Your task to perform on an android device: toggle airplane mode Image 0: 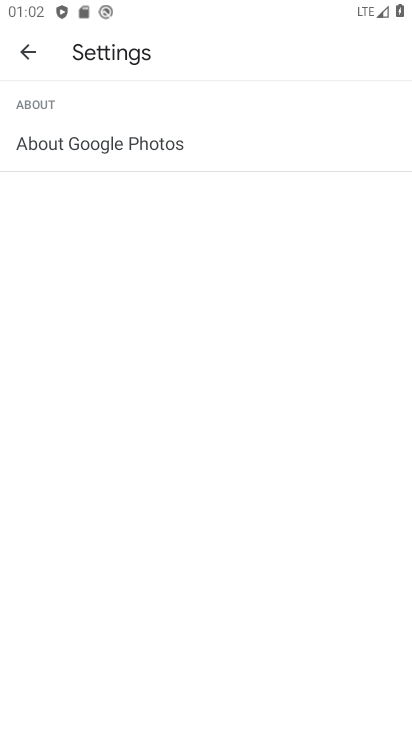
Step 0: press home button
Your task to perform on an android device: toggle airplane mode Image 1: 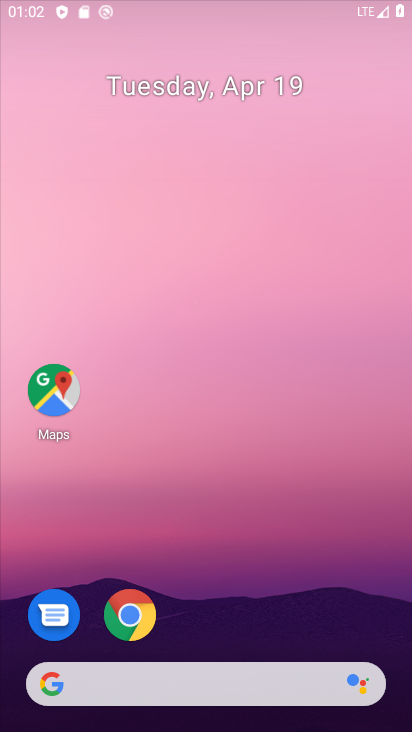
Step 1: drag from (233, 663) to (244, 167)
Your task to perform on an android device: toggle airplane mode Image 2: 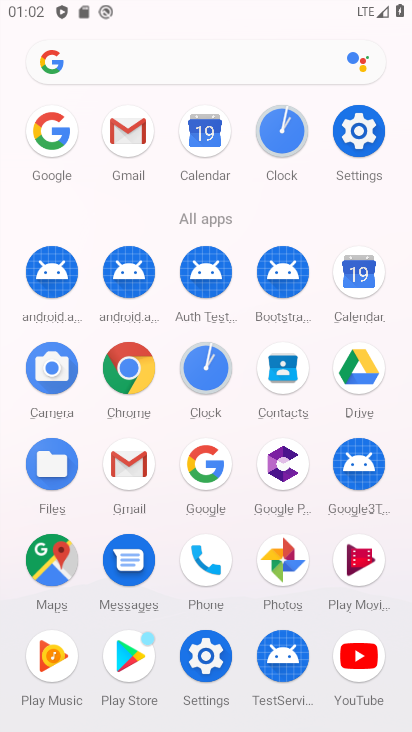
Step 2: click (365, 147)
Your task to perform on an android device: toggle airplane mode Image 3: 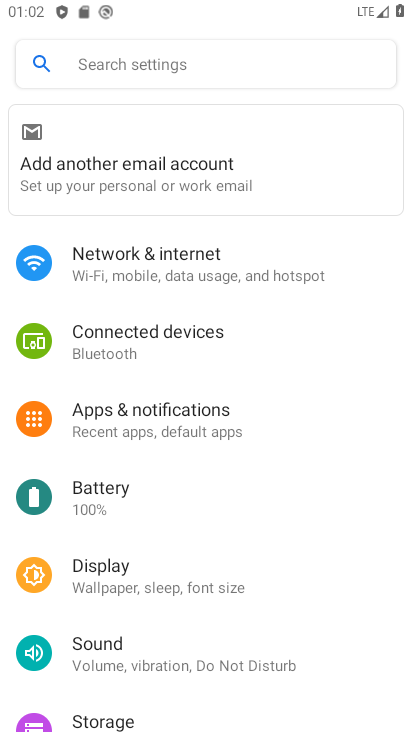
Step 3: click (260, 258)
Your task to perform on an android device: toggle airplane mode Image 4: 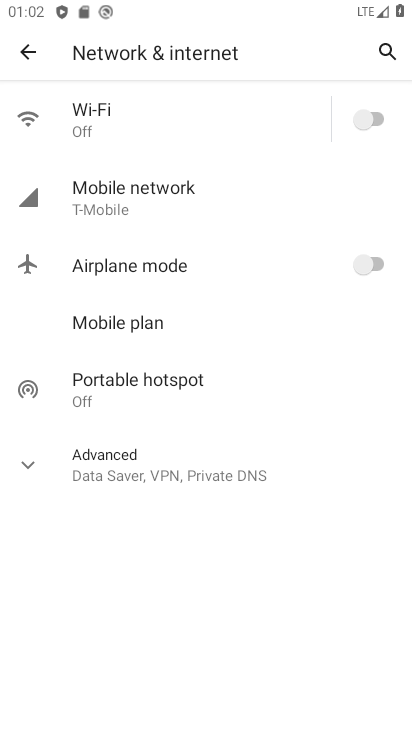
Step 4: click (352, 263)
Your task to perform on an android device: toggle airplane mode Image 5: 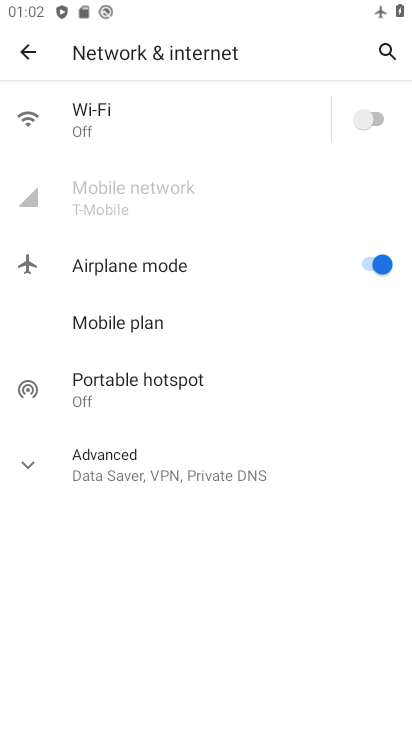
Step 5: task complete